Your task to perform on an android device: Open Wikipedia Image 0: 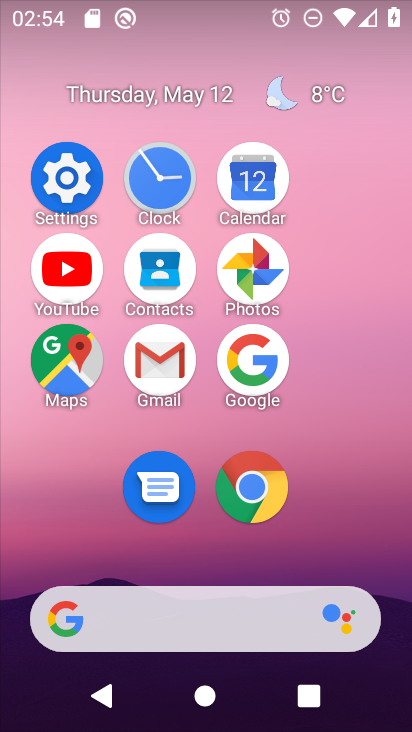
Step 0: click (243, 476)
Your task to perform on an android device: Open Wikipedia Image 1: 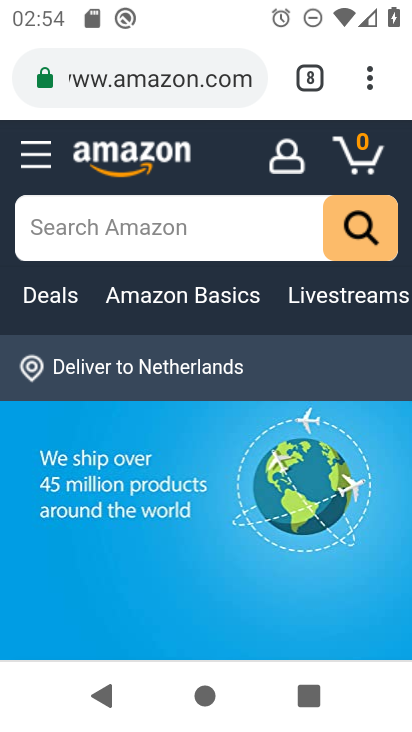
Step 1: click (308, 91)
Your task to perform on an android device: Open Wikipedia Image 2: 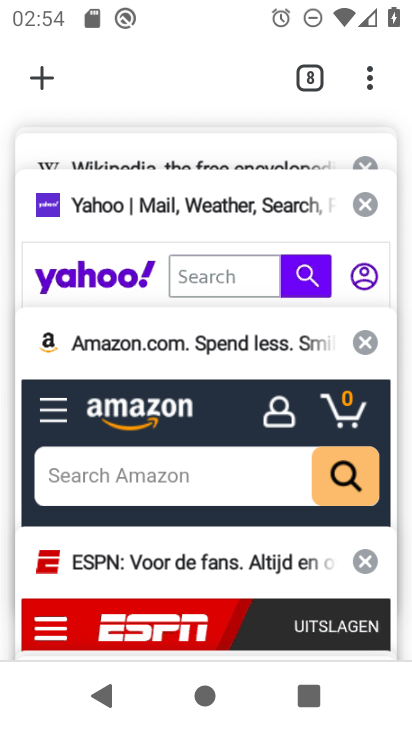
Step 2: drag from (191, 195) to (180, 321)
Your task to perform on an android device: Open Wikipedia Image 3: 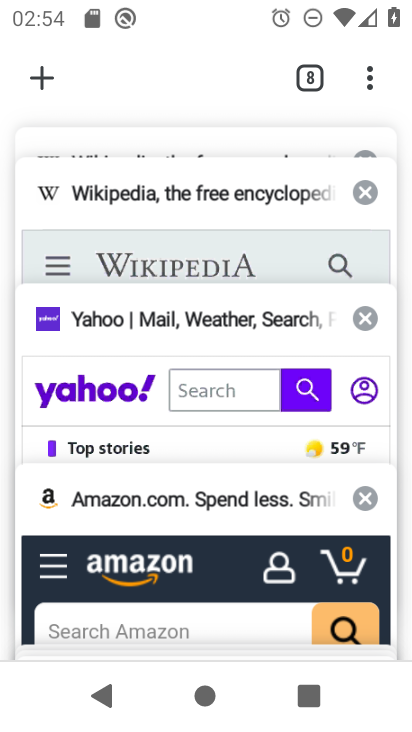
Step 3: click (152, 217)
Your task to perform on an android device: Open Wikipedia Image 4: 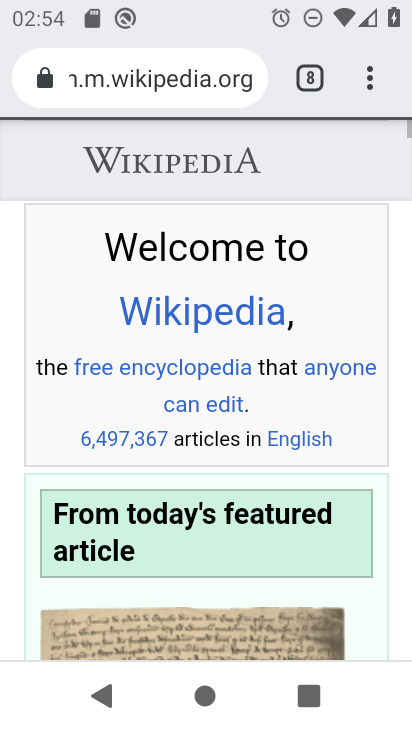
Step 4: task complete